Your task to perform on an android device: Open privacy settings Image 0: 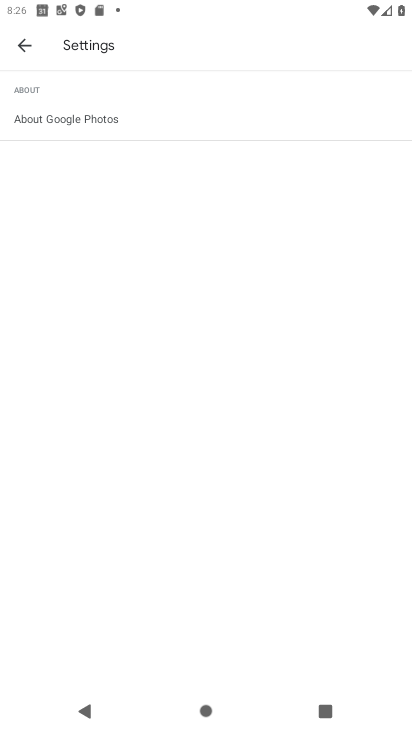
Step 0: press home button
Your task to perform on an android device: Open privacy settings Image 1: 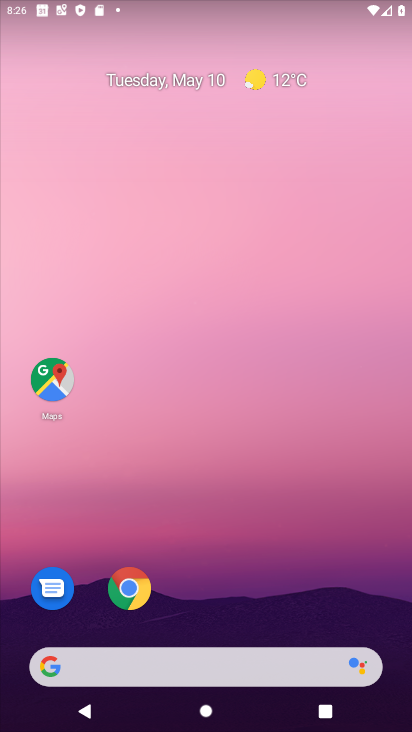
Step 1: click (128, 600)
Your task to perform on an android device: Open privacy settings Image 2: 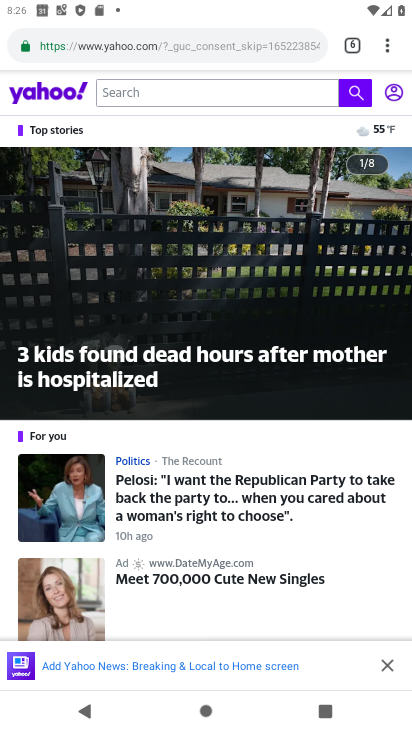
Step 2: click (381, 49)
Your task to perform on an android device: Open privacy settings Image 3: 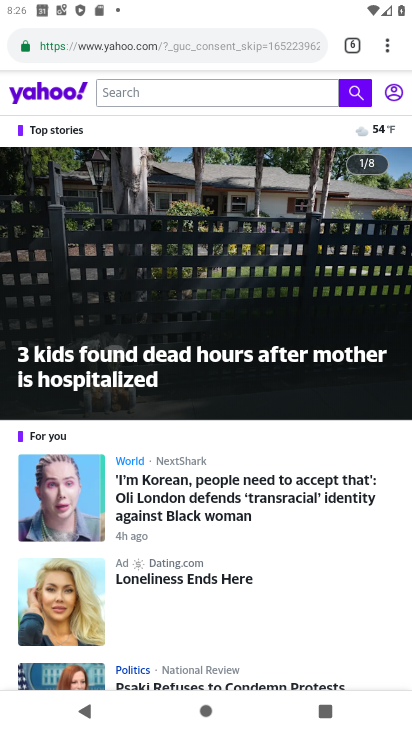
Step 3: click (381, 49)
Your task to perform on an android device: Open privacy settings Image 4: 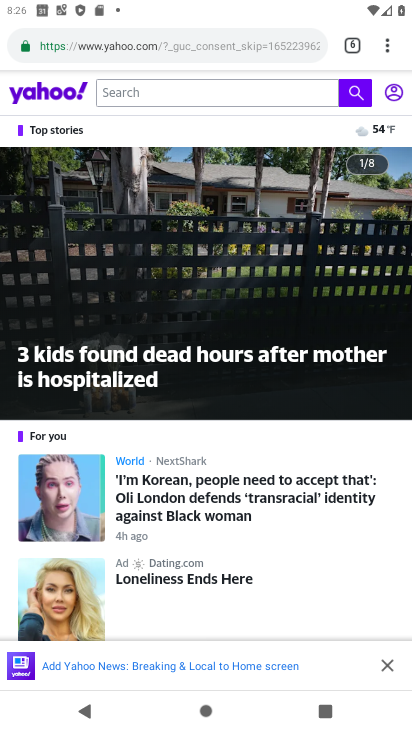
Step 4: click (379, 41)
Your task to perform on an android device: Open privacy settings Image 5: 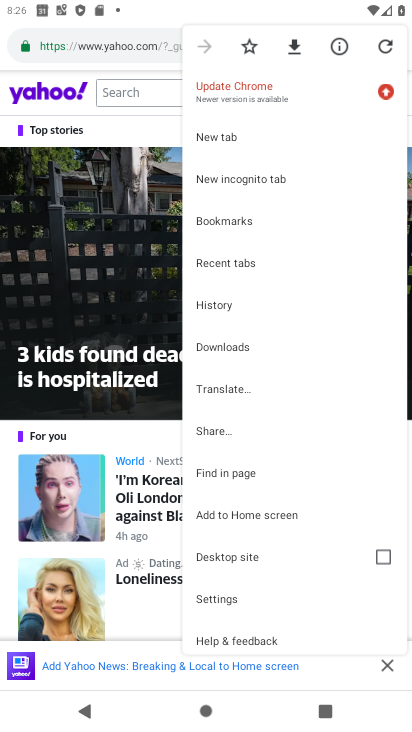
Step 5: click (212, 589)
Your task to perform on an android device: Open privacy settings Image 6: 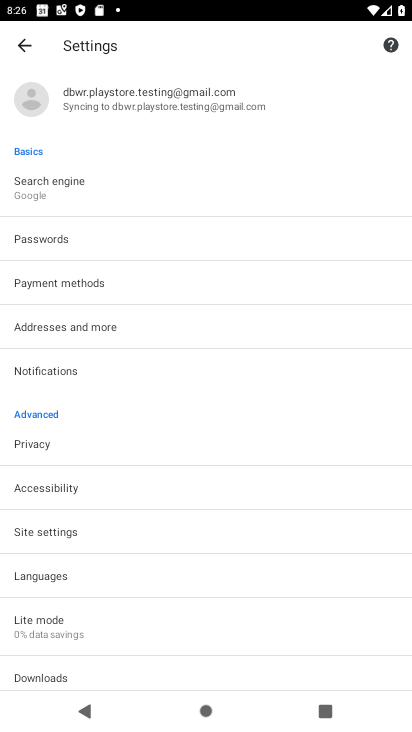
Step 6: click (179, 437)
Your task to perform on an android device: Open privacy settings Image 7: 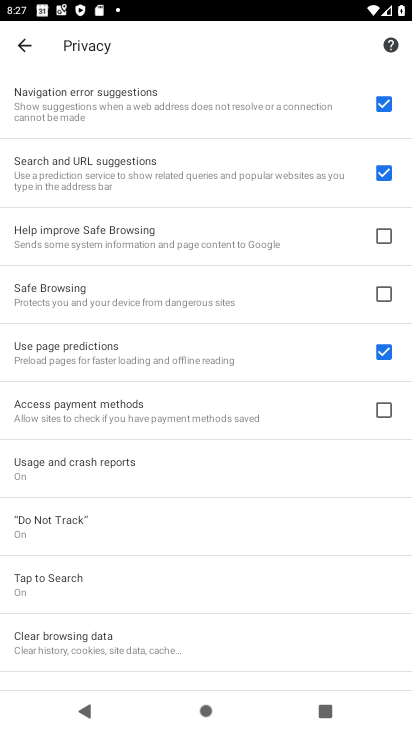
Step 7: task complete